Your task to perform on an android device: turn on improve location accuracy Image 0: 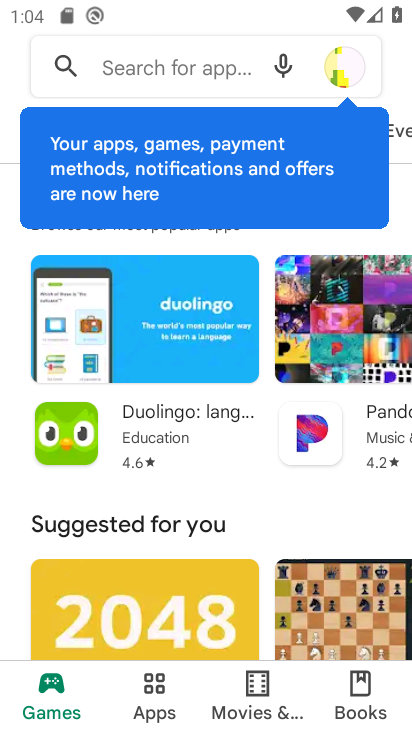
Step 0: press home button
Your task to perform on an android device: turn on improve location accuracy Image 1: 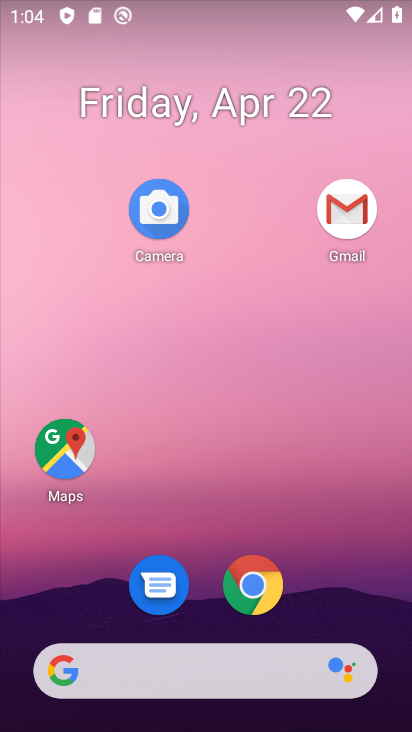
Step 1: drag from (342, 585) to (309, 87)
Your task to perform on an android device: turn on improve location accuracy Image 2: 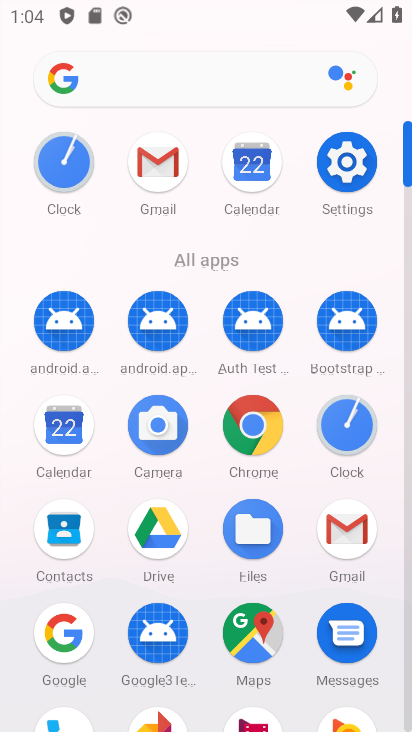
Step 2: click (343, 157)
Your task to perform on an android device: turn on improve location accuracy Image 3: 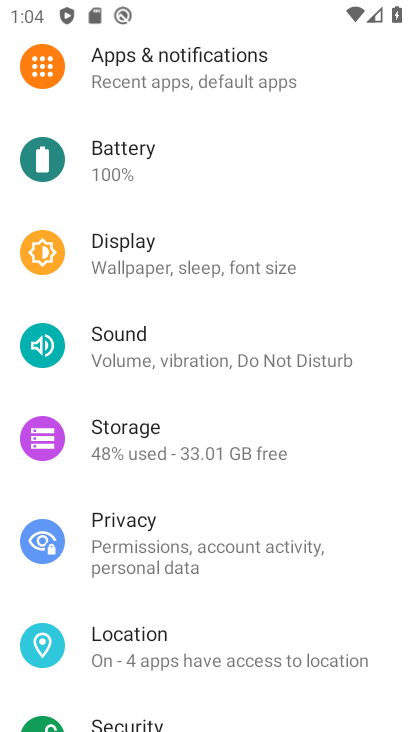
Step 3: click (291, 655)
Your task to perform on an android device: turn on improve location accuracy Image 4: 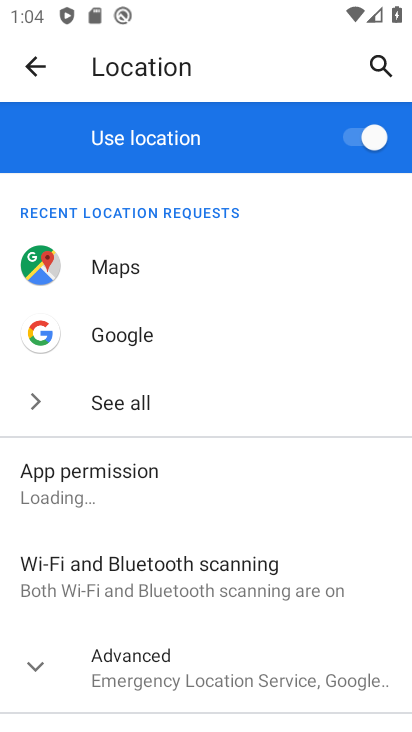
Step 4: drag from (329, 527) to (334, 256)
Your task to perform on an android device: turn on improve location accuracy Image 5: 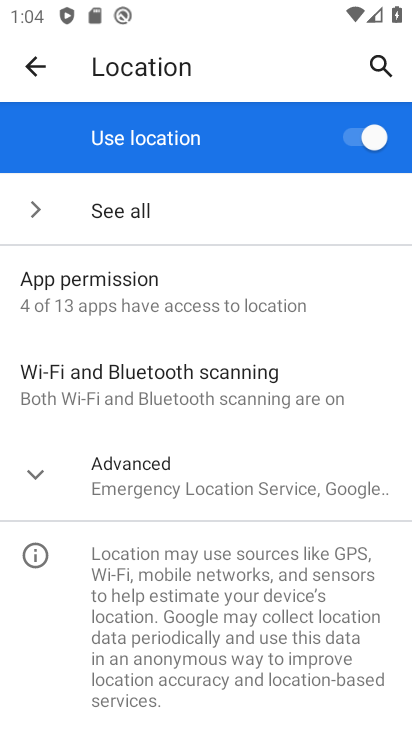
Step 5: click (38, 478)
Your task to perform on an android device: turn on improve location accuracy Image 6: 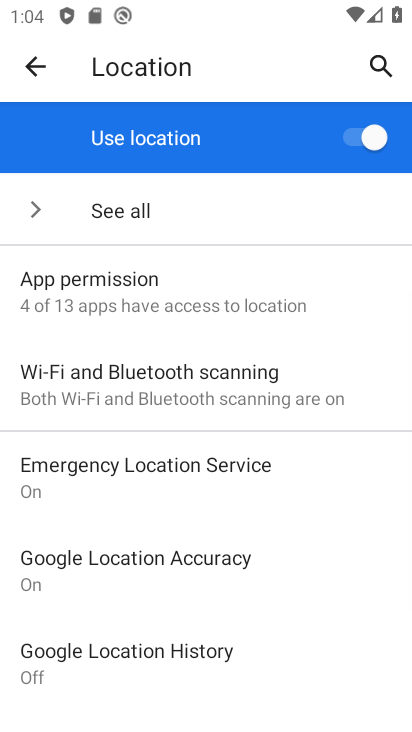
Step 6: task complete